Your task to perform on an android device: What is the news today? Image 0: 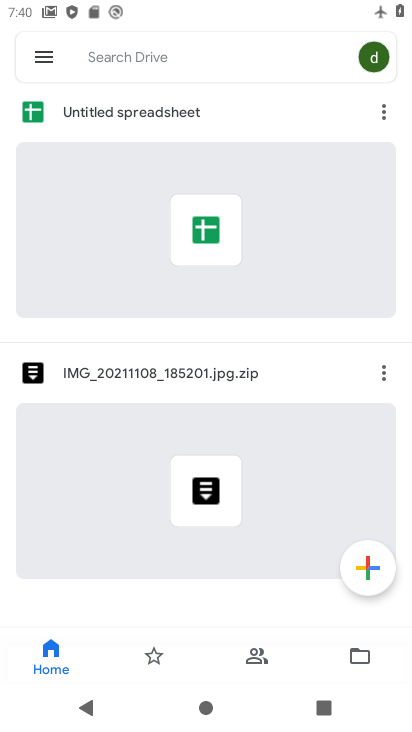
Step 0: press home button
Your task to perform on an android device: What is the news today? Image 1: 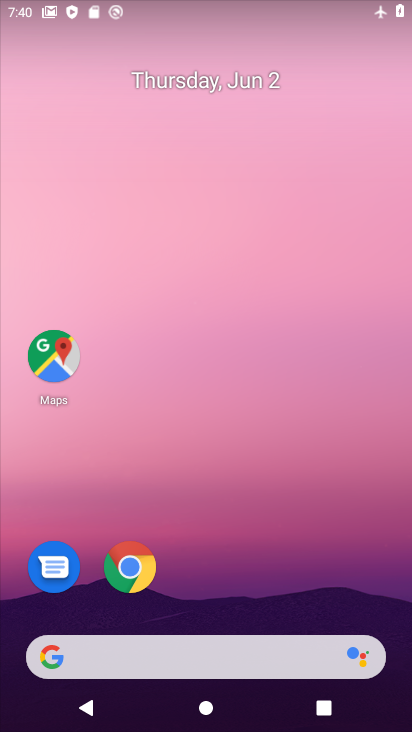
Step 1: drag from (265, 571) to (151, 103)
Your task to perform on an android device: What is the news today? Image 2: 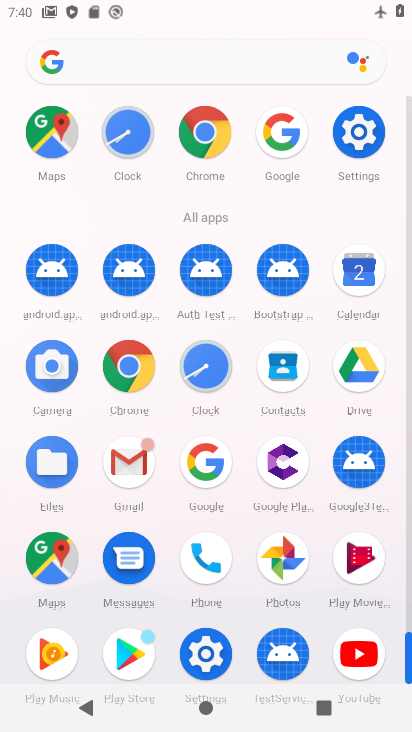
Step 2: click (280, 129)
Your task to perform on an android device: What is the news today? Image 3: 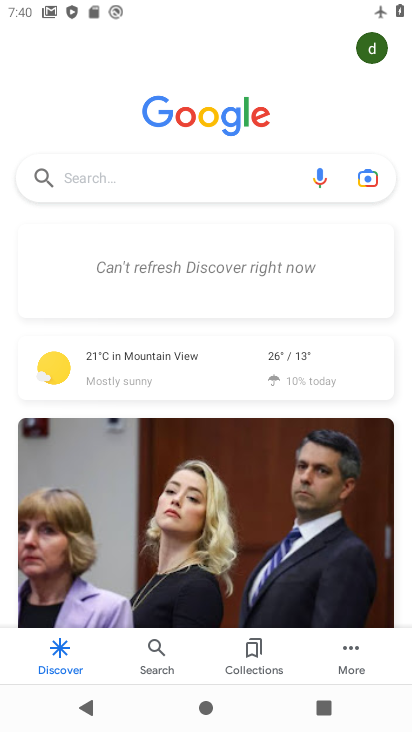
Step 3: click (224, 175)
Your task to perform on an android device: What is the news today? Image 4: 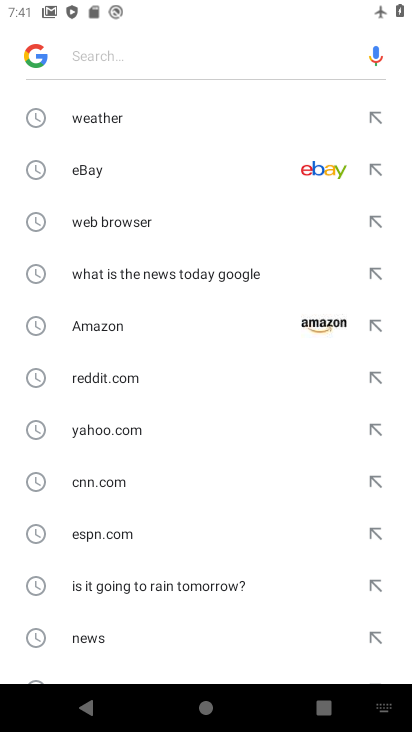
Step 4: type "news today"
Your task to perform on an android device: What is the news today? Image 5: 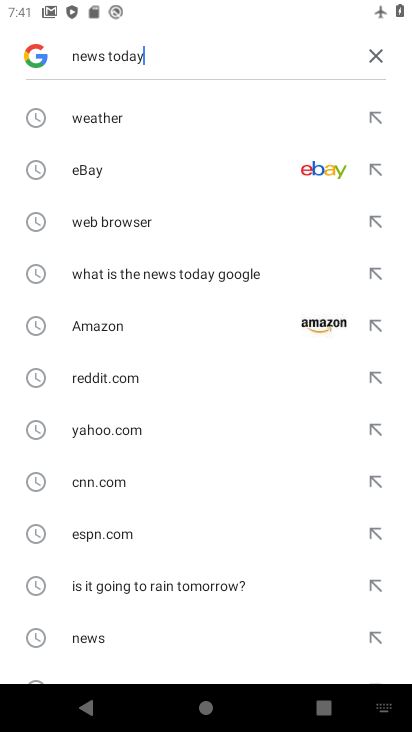
Step 5: type ""
Your task to perform on an android device: What is the news today? Image 6: 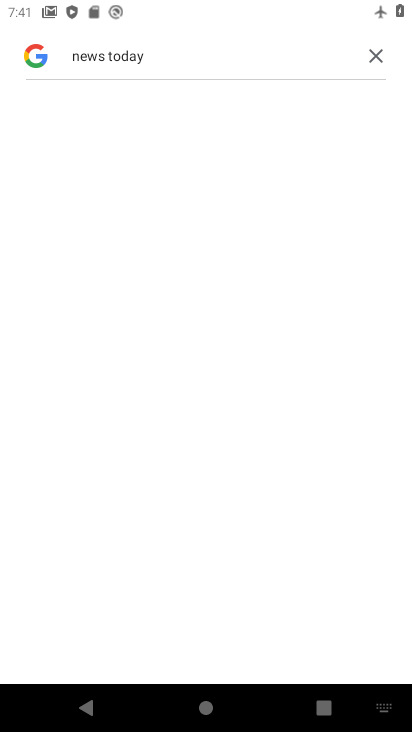
Step 6: task complete